Your task to perform on an android device: Do I have any events today? Image 0: 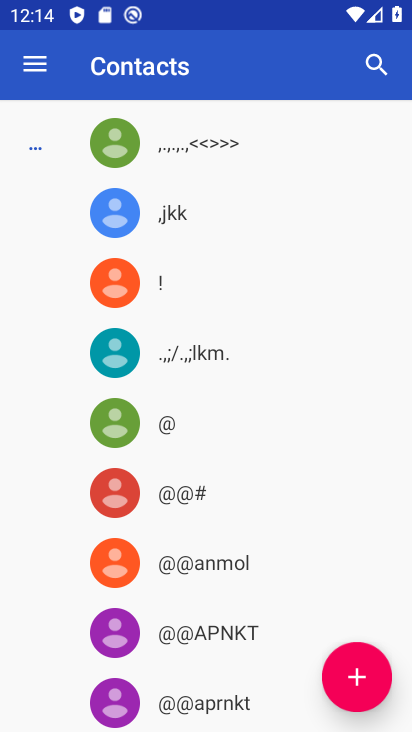
Step 0: press home button
Your task to perform on an android device: Do I have any events today? Image 1: 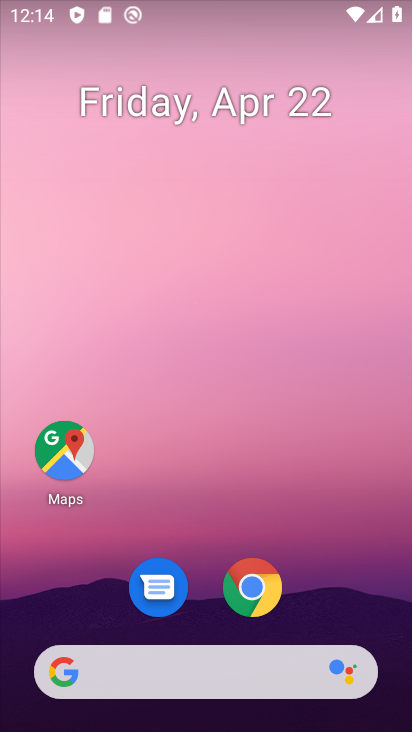
Step 1: drag from (201, 613) to (192, 191)
Your task to perform on an android device: Do I have any events today? Image 2: 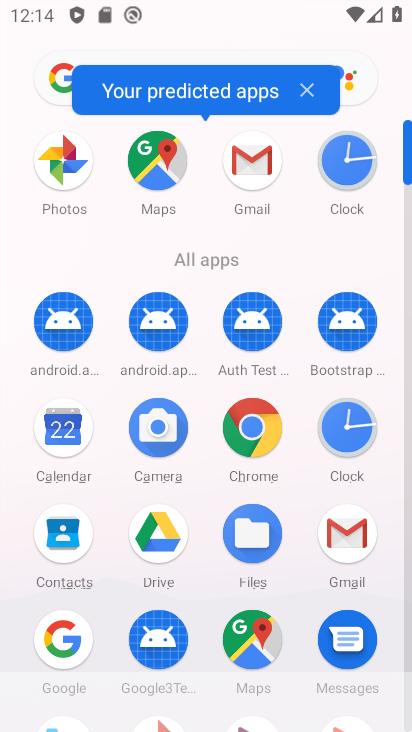
Step 2: click (69, 445)
Your task to perform on an android device: Do I have any events today? Image 3: 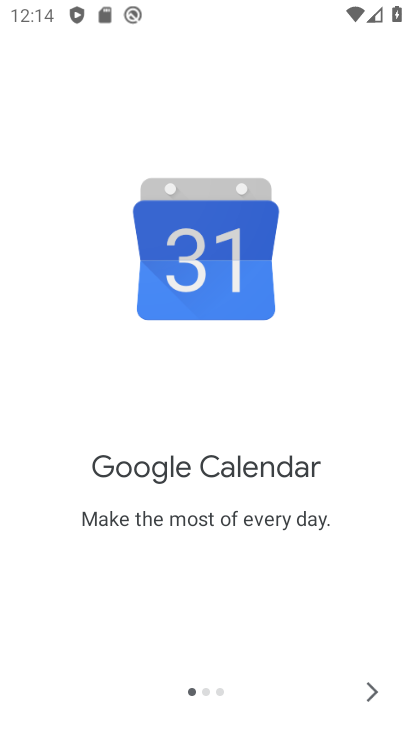
Step 3: click (378, 685)
Your task to perform on an android device: Do I have any events today? Image 4: 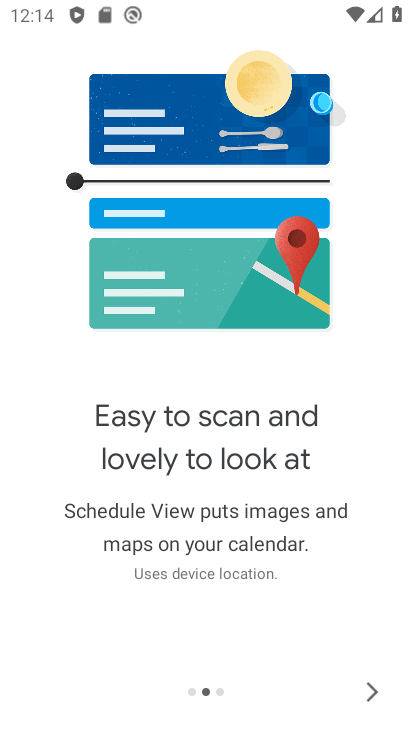
Step 4: click (368, 688)
Your task to perform on an android device: Do I have any events today? Image 5: 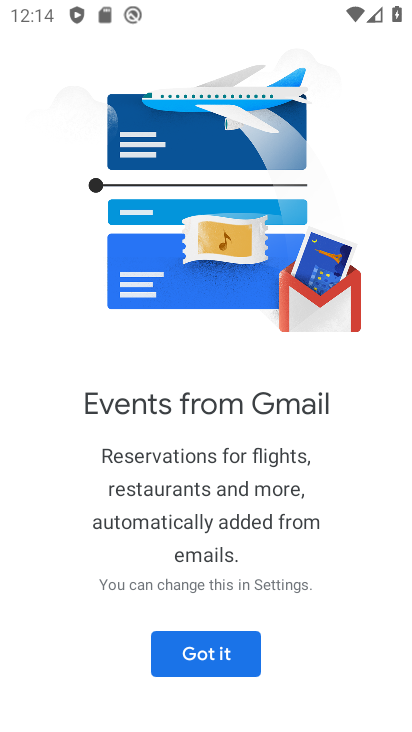
Step 5: click (219, 653)
Your task to perform on an android device: Do I have any events today? Image 6: 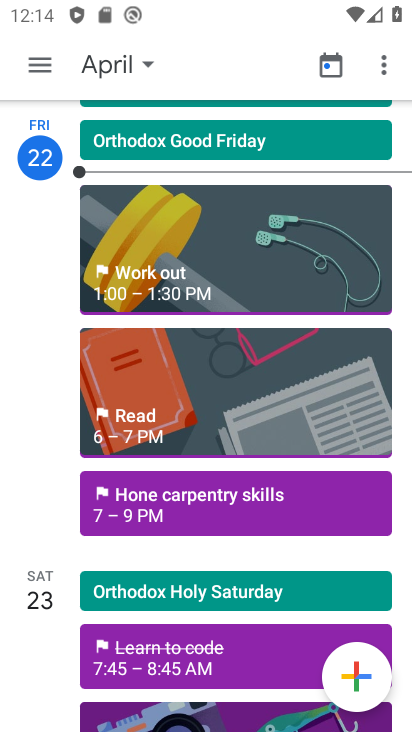
Step 6: click (143, 61)
Your task to perform on an android device: Do I have any events today? Image 7: 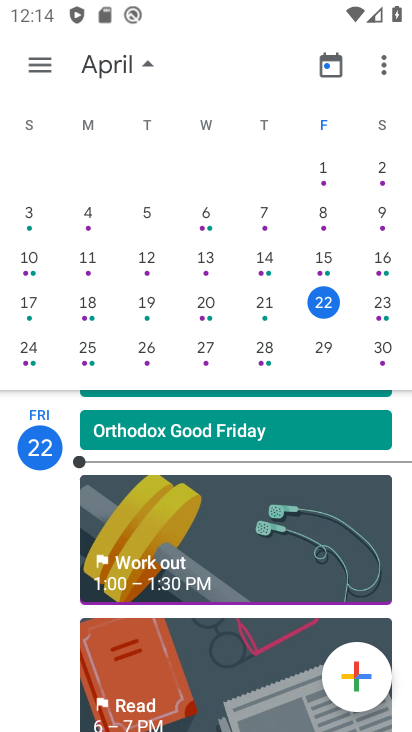
Step 7: click (321, 304)
Your task to perform on an android device: Do I have any events today? Image 8: 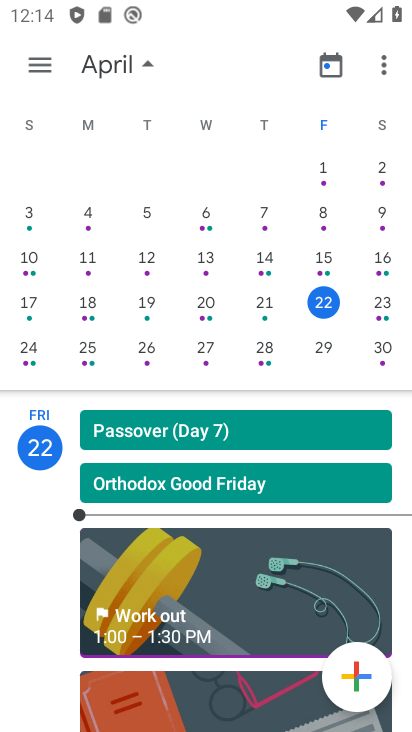
Step 8: task complete